Your task to perform on an android device: Open calendar and show me the second week of next month Image 0: 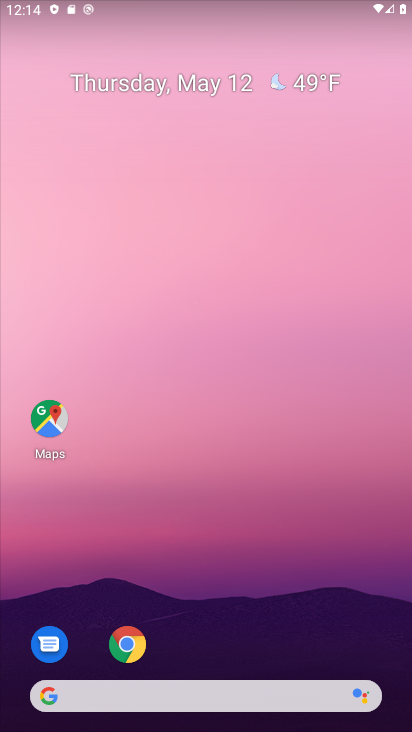
Step 0: drag from (225, 594) to (163, 95)
Your task to perform on an android device: Open calendar and show me the second week of next month Image 1: 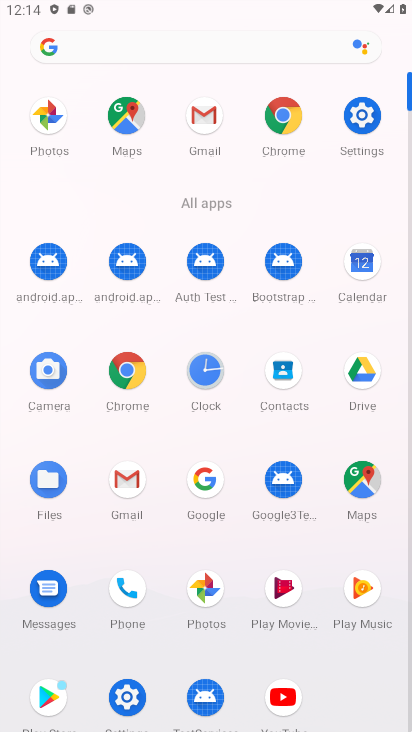
Step 1: click (362, 268)
Your task to perform on an android device: Open calendar and show me the second week of next month Image 2: 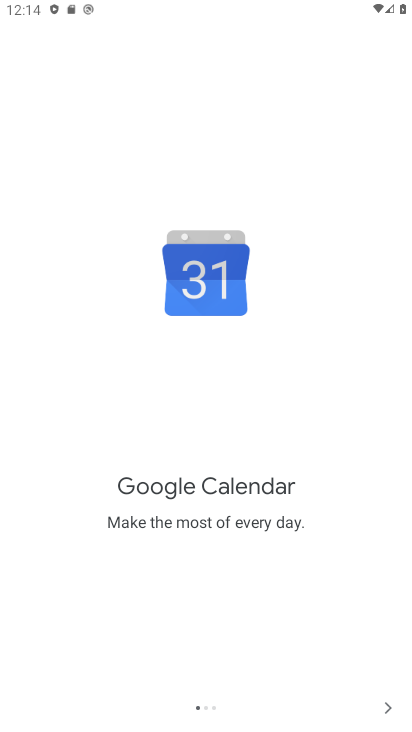
Step 2: click (385, 707)
Your task to perform on an android device: Open calendar and show me the second week of next month Image 3: 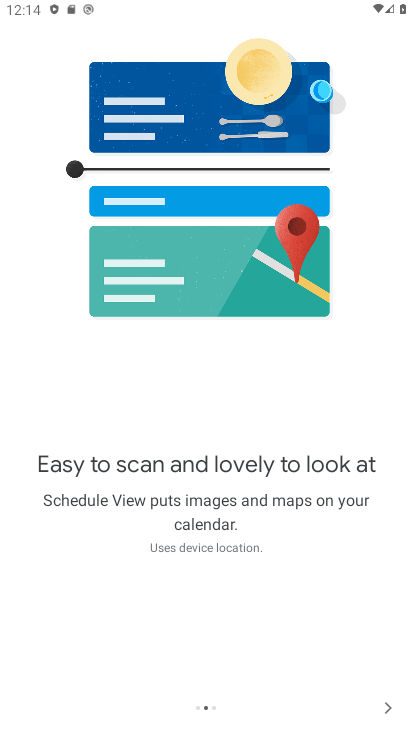
Step 3: click (385, 707)
Your task to perform on an android device: Open calendar and show me the second week of next month Image 4: 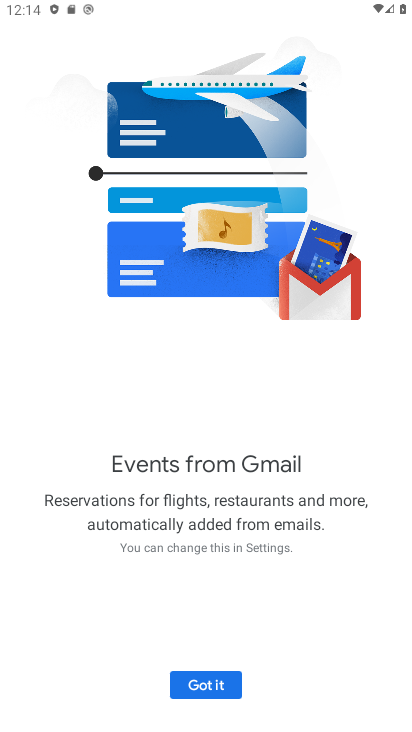
Step 4: click (217, 675)
Your task to perform on an android device: Open calendar and show me the second week of next month Image 5: 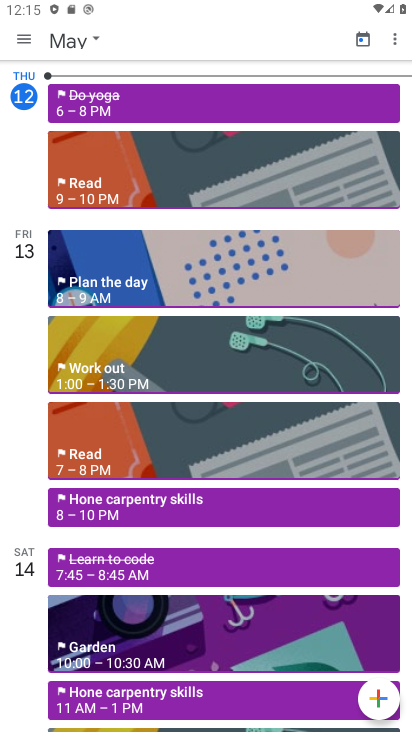
Step 5: click (26, 39)
Your task to perform on an android device: Open calendar and show me the second week of next month Image 6: 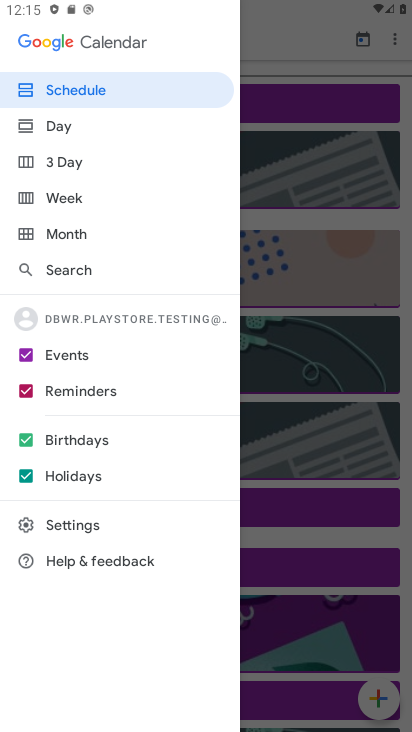
Step 6: click (58, 194)
Your task to perform on an android device: Open calendar and show me the second week of next month Image 7: 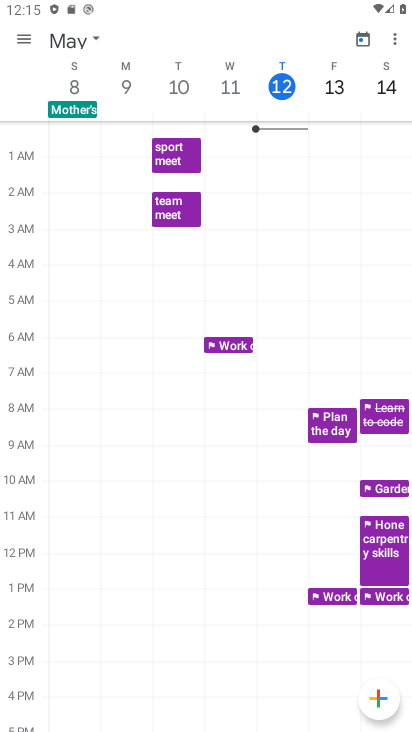
Step 7: click (87, 41)
Your task to perform on an android device: Open calendar and show me the second week of next month Image 8: 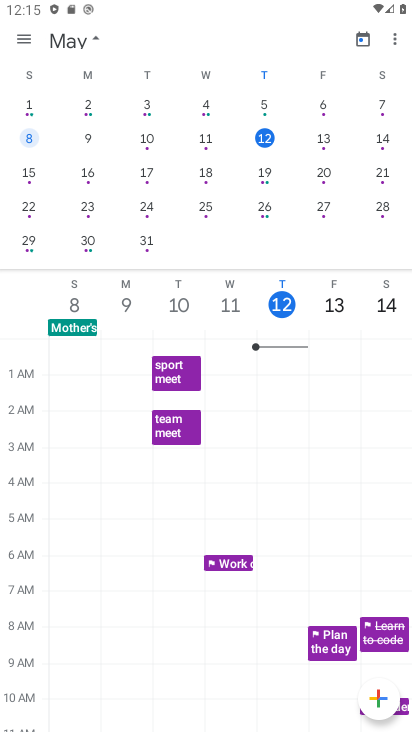
Step 8: drag from (363, 160) to (29, 173)
Your task to perform on an android device: Open calendar and show me the second week of next month Image 9: 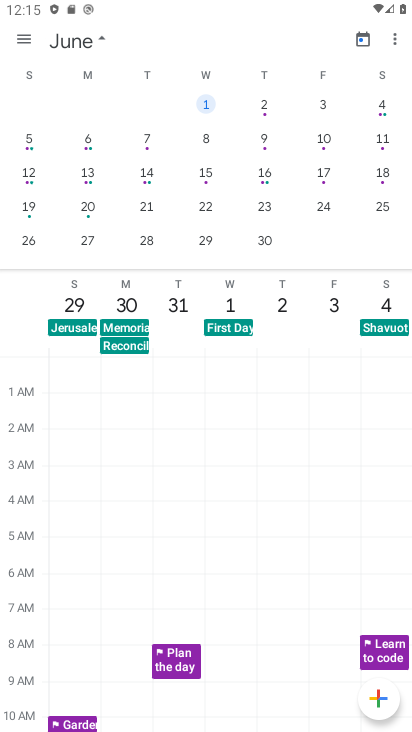
Step 9: click (206, 131)
Your task to perform on an android device: Open calendar and show me the second week of next month Image 10: 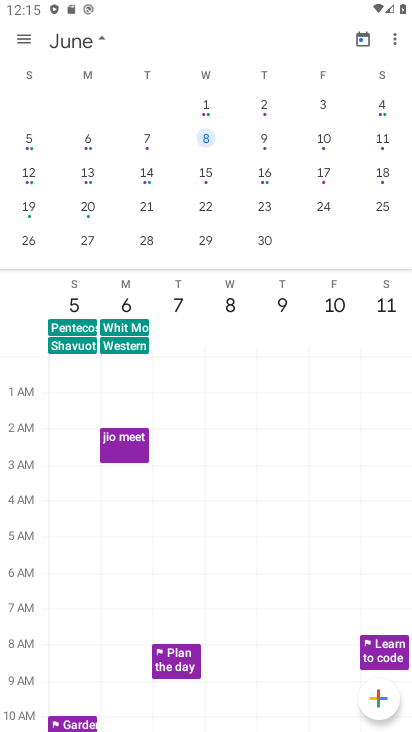
Step 10: task complete